Your task to perform on an android device: add a contact Image 0: 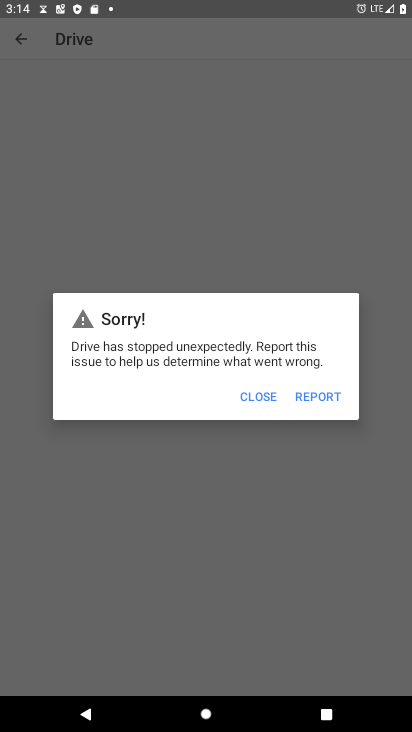
Step 0: press home button
Your task to perform on an android device: add a contact Image 1: 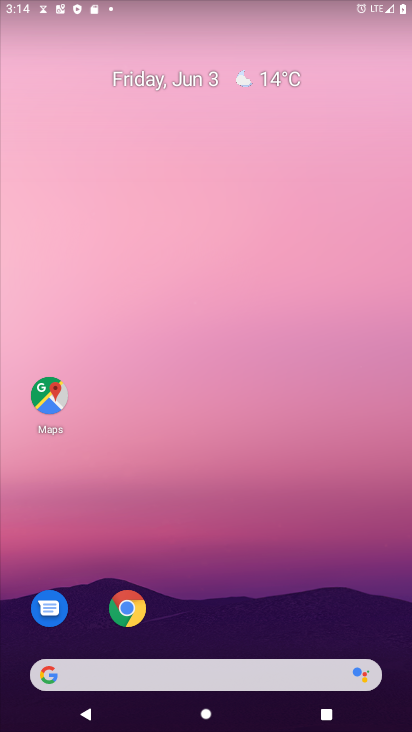
Step 1: drag from (208, 682) to (182, 175)
Your task to perform on an android device: add a contact Image 2: 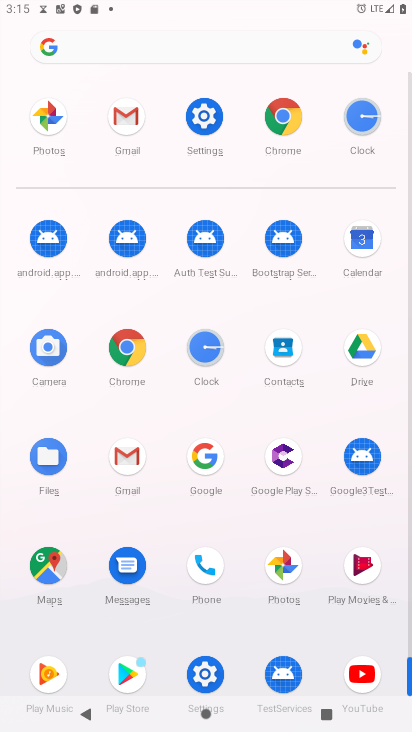
Step 2: click (301, 370)
Your task to perform on an android device: add a contact Image 3: 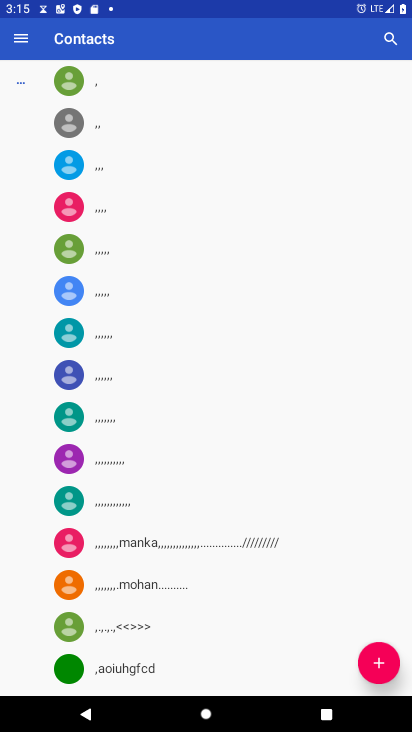
Step 3: click (385, 671)
Your task to perform on an android device: add a contact Image 4: 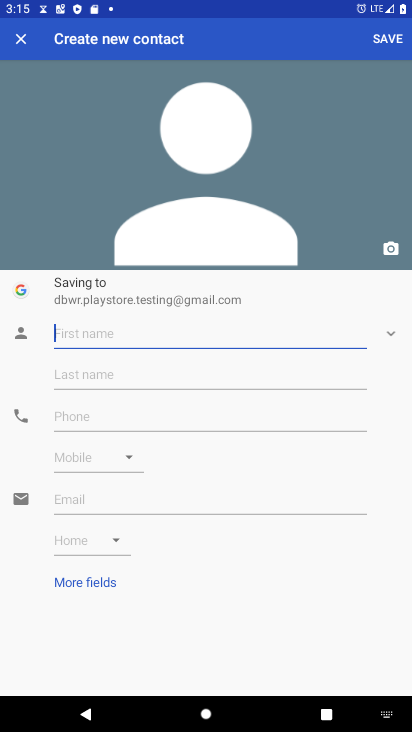
Step 4: click (185, 322)
Your task to perform on an android device: add a contact Image 5: 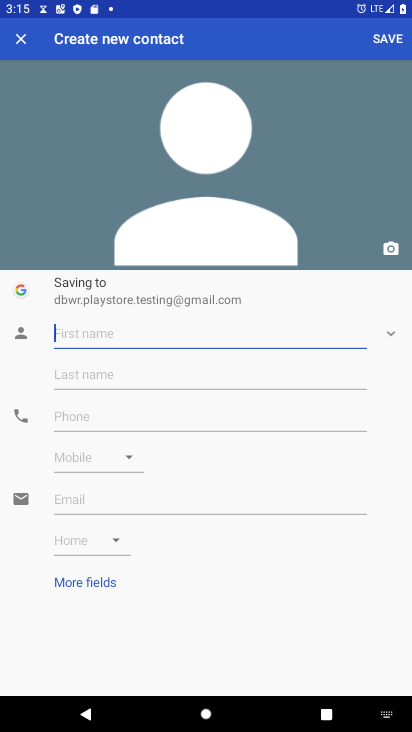
Step 5: click (190, 335)
Your task to perform on an android device: add a contact Image 6: 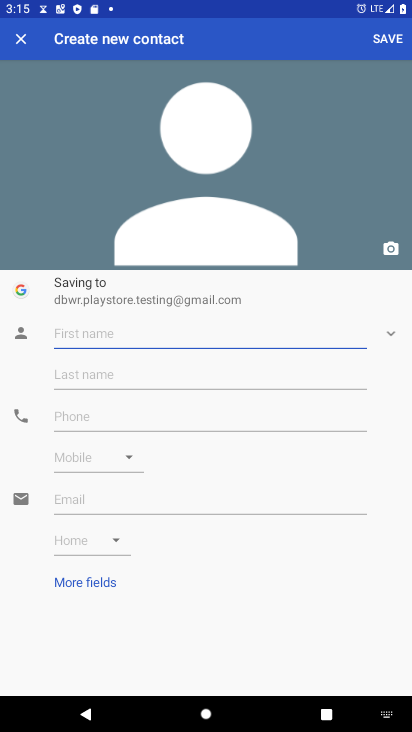
Step 6: type "iweroqw"
Your task to perform on an android device: add a contact Image 7: 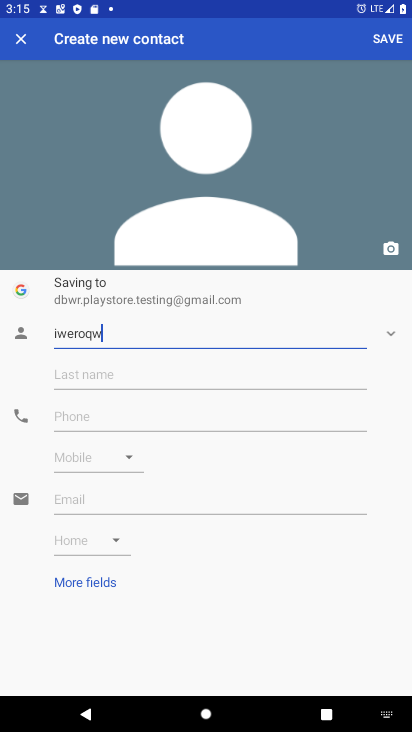
Step 7: click (87, 428)
Your task to perform on an android device: add a contact Image 8: 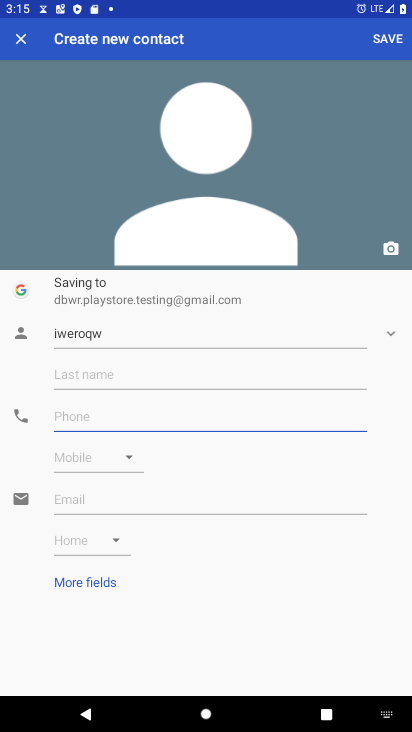
Step 8: type "48573503"
Your task to perform on an android device: add a contact Image 9: 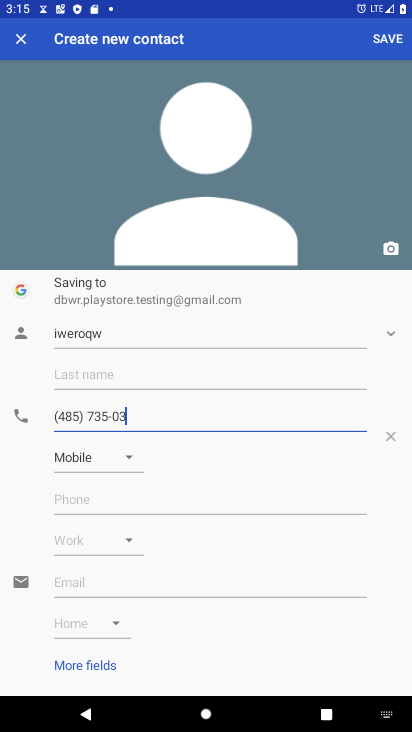
Step 9: click (383, 51)
Your task to perform on an android device: add a contact Image 10: 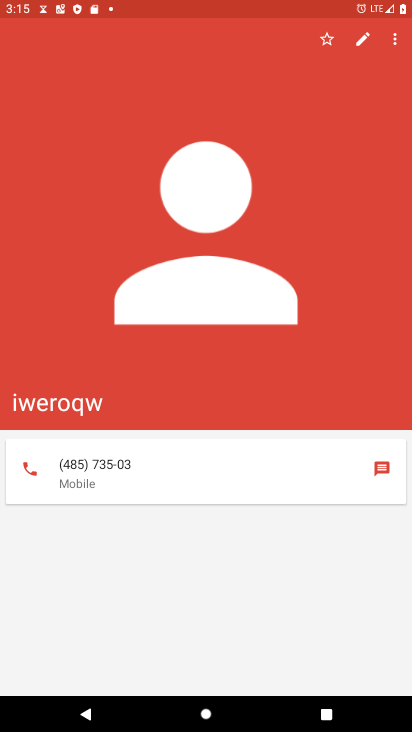
Step 10: task complete